Your task to perform on an android device: uninstall "Walmart Shopping & Grocery" Image 0: 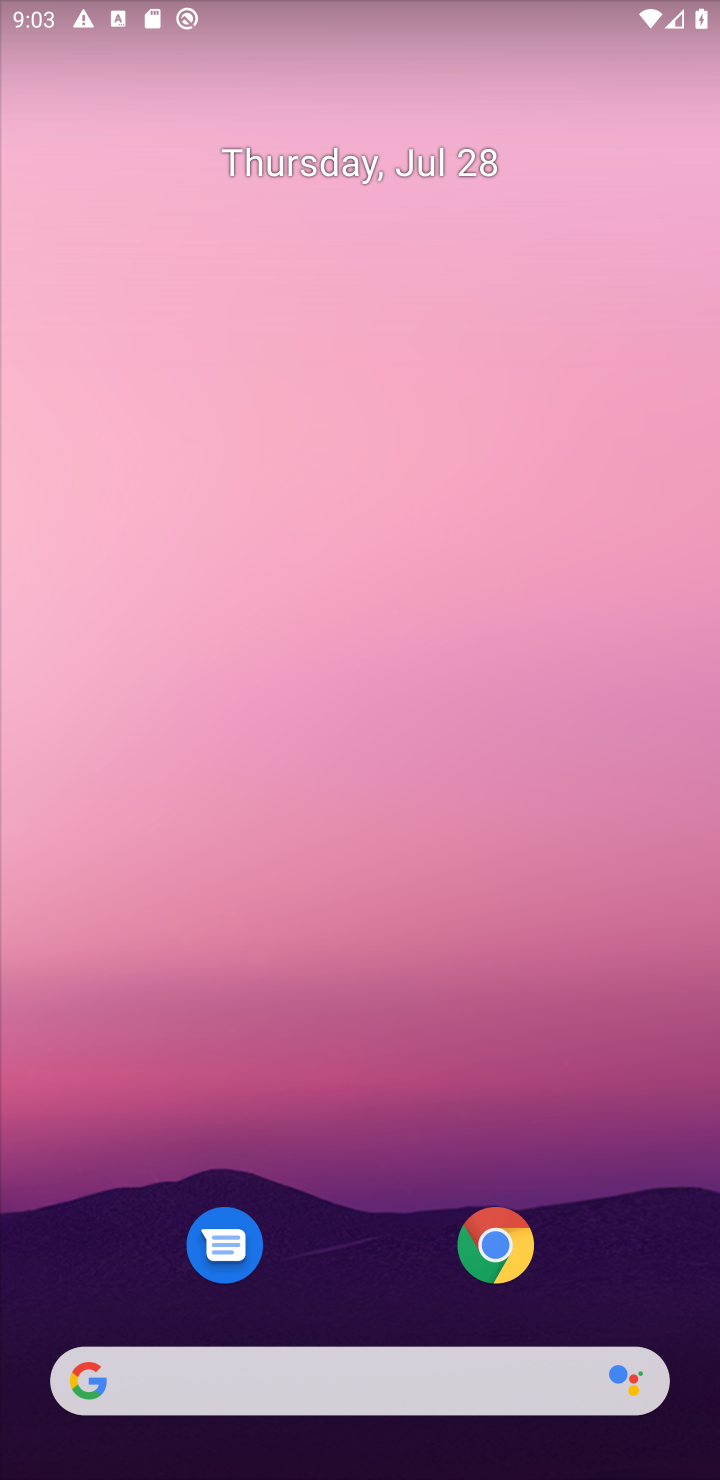
Step 0: drag from (343, 1238) to (495, 3)
Your task to perform on an android device: uninstall "Walmart Shopping & Grocery" Image 1: 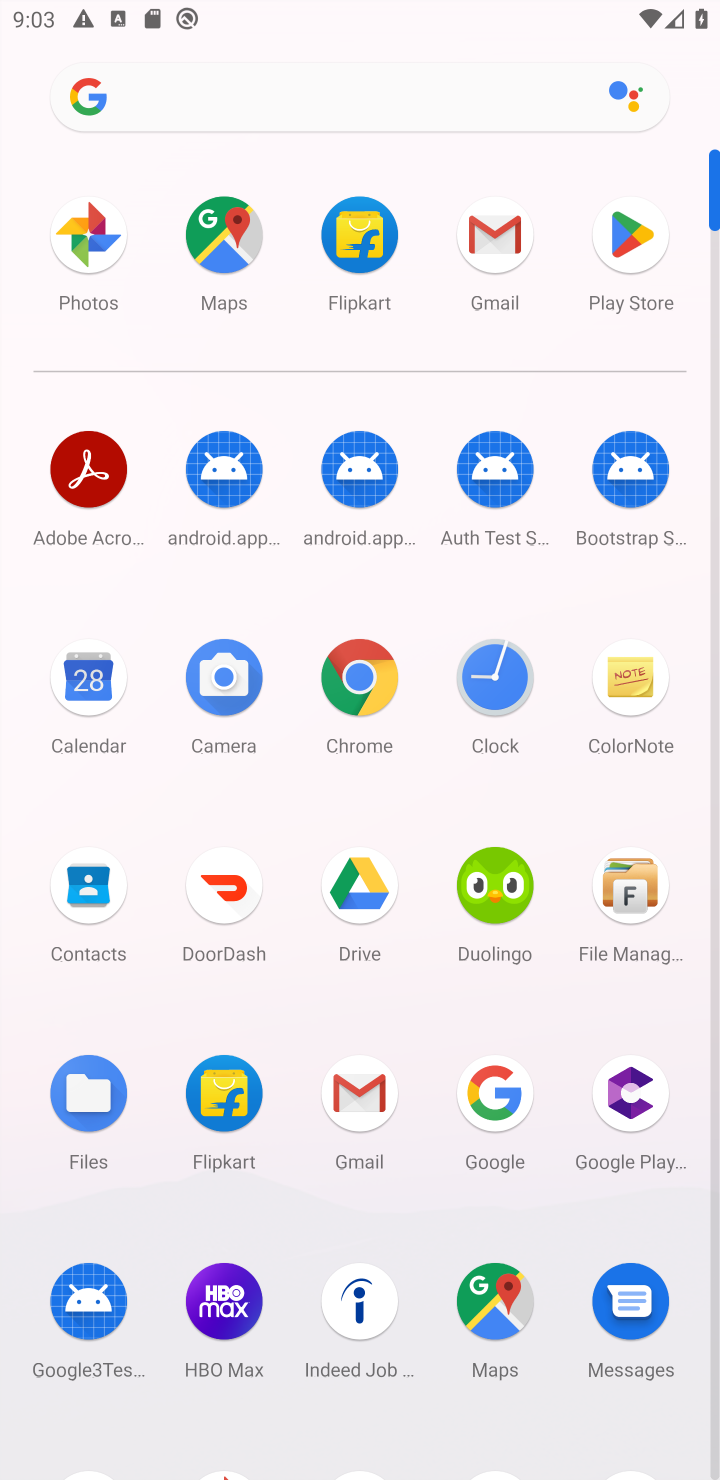
Step 1: click (620, 240)
Your task to perform on an android device: uninstall "Walmart Shopping & Grocery" Image 2: 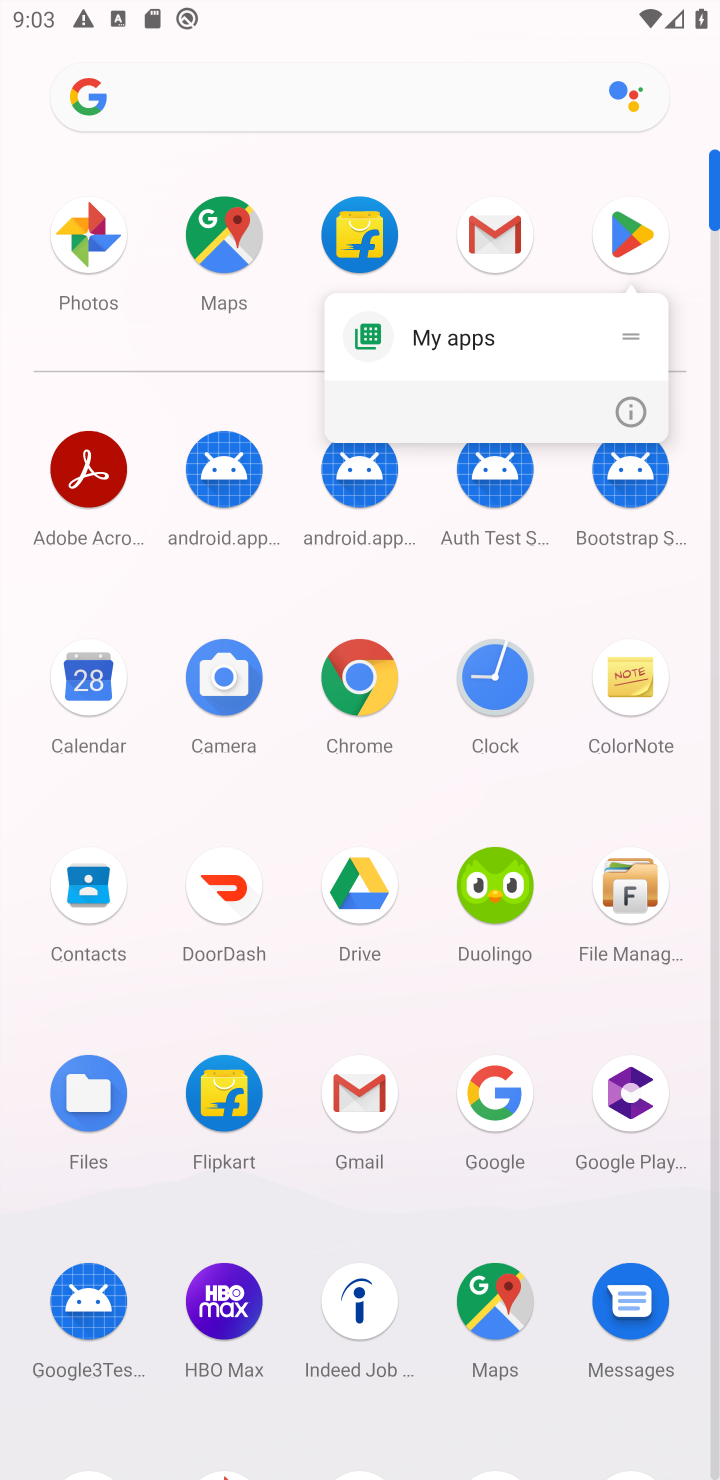
Step 2: click (623, 230)
Your task to perform on an android device: uninstall "Walmart Shopping & Grocery" Image 3: 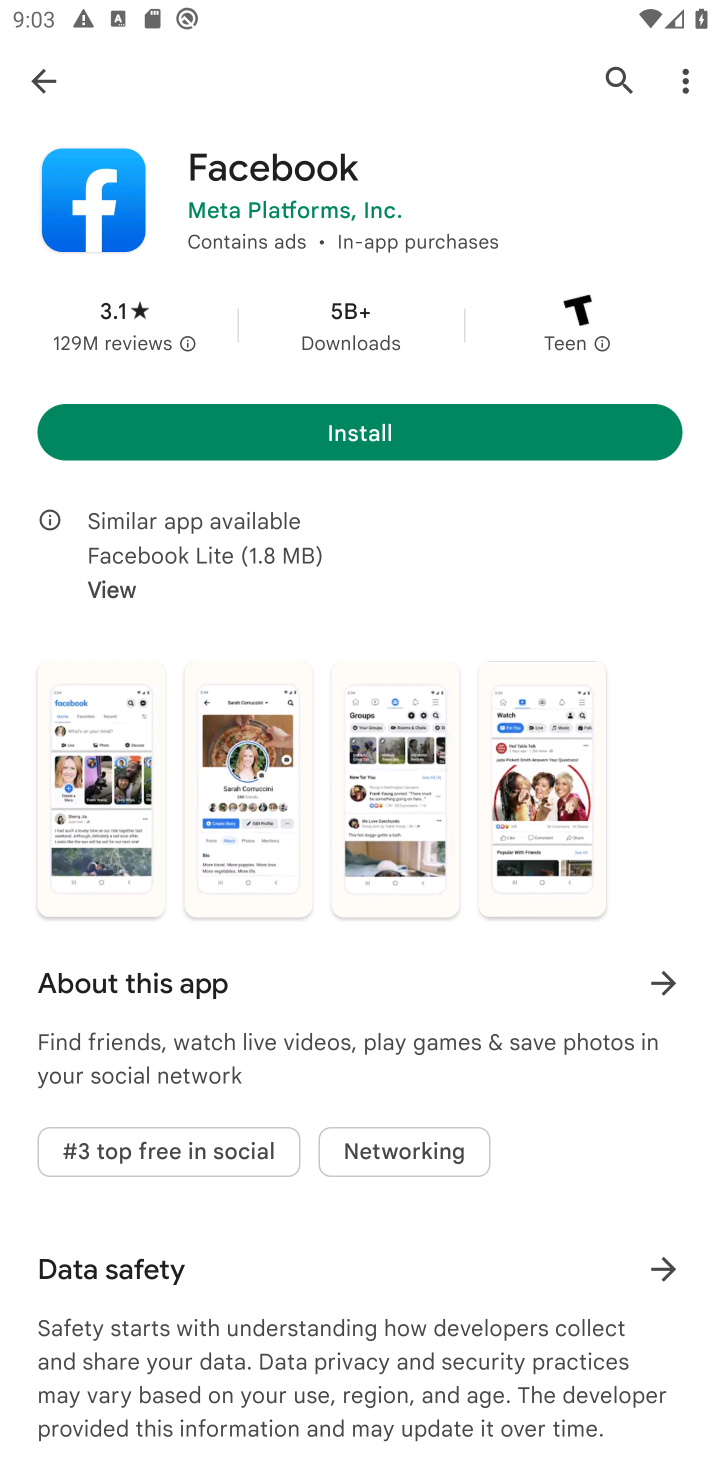
Step 3: click (619, 81)
Your task to perform on an android device: uninstall "Walmart Shopping & Grocery" Image 4: 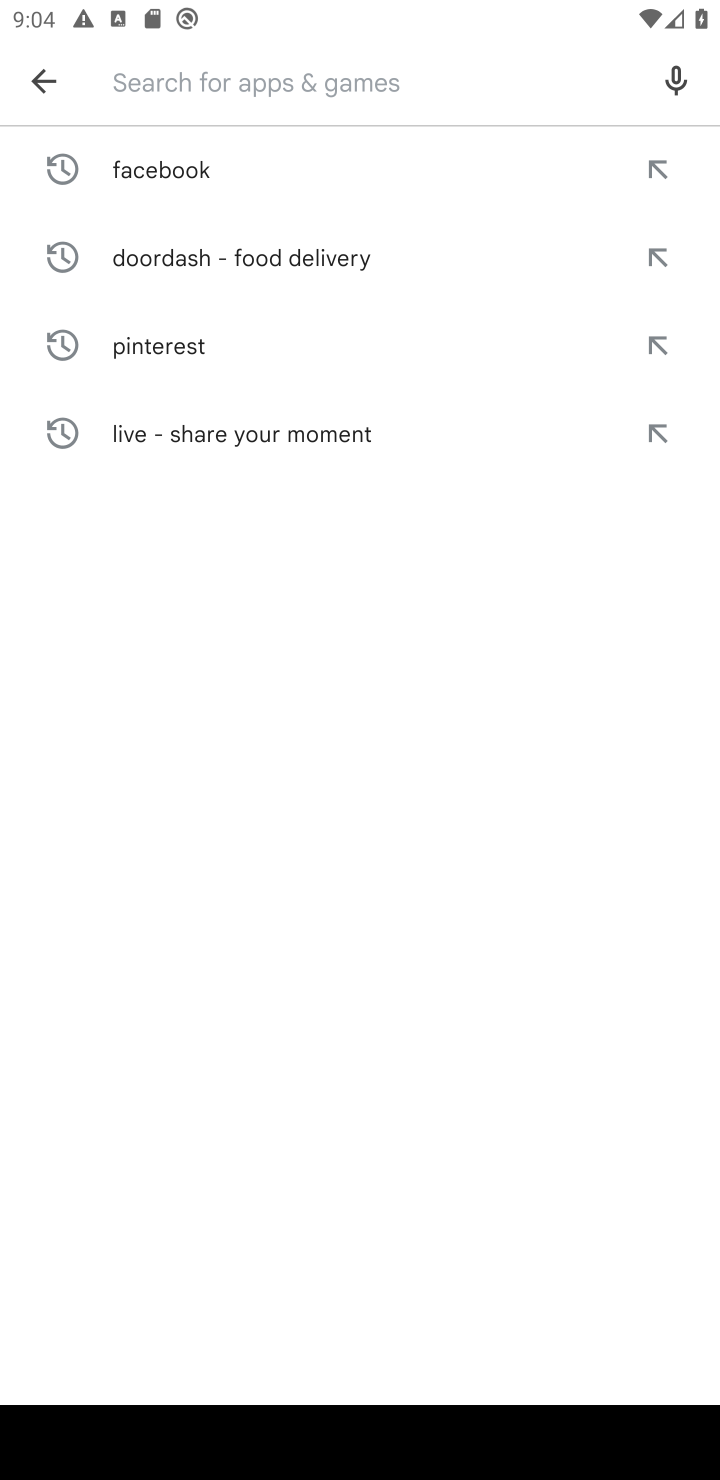
Step 4: type "Walmart shoping & grocery"
Your task to perform on an android device: uninstall "Walmart Shopping & Grocery" Image 5: 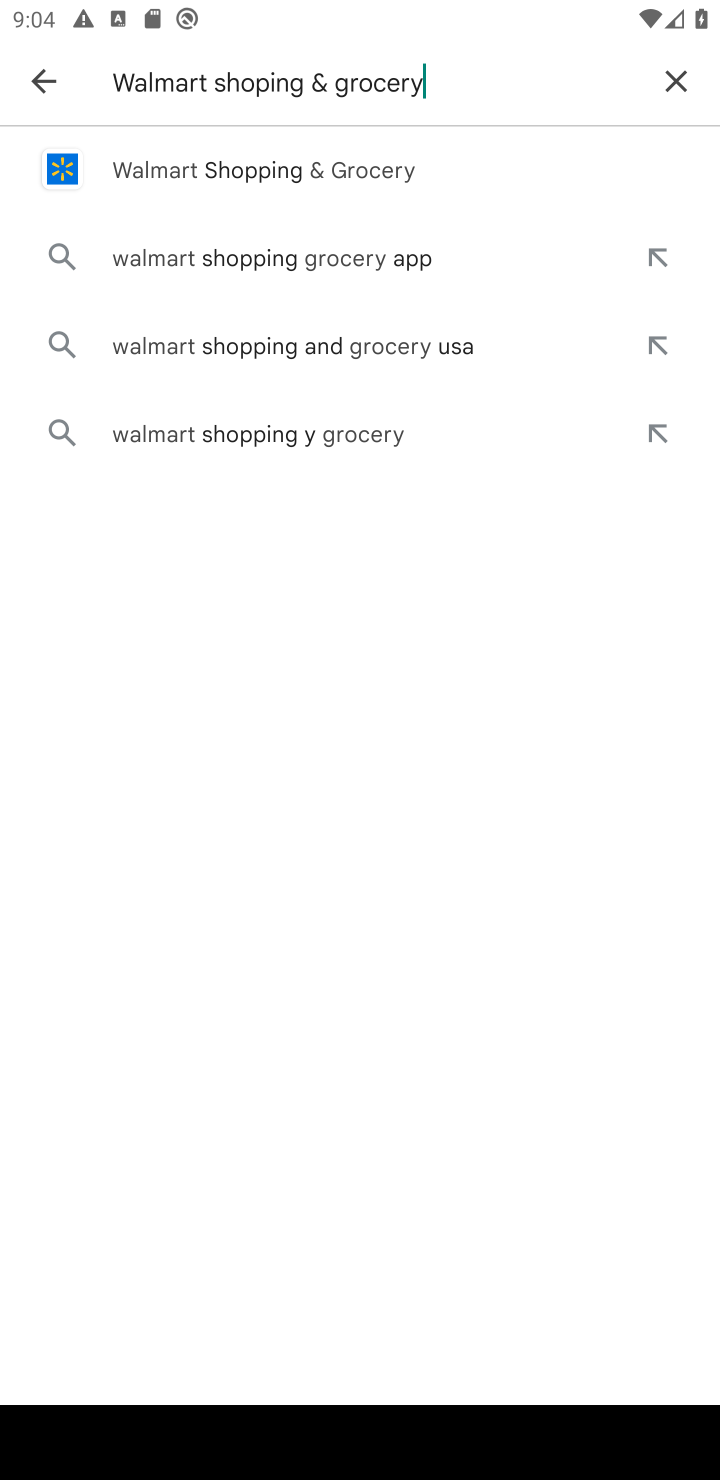
Step 5: click (317, 165)
Your task to perform on an android device: uninstall "Walmart Shopping & Grocery" Image 6: 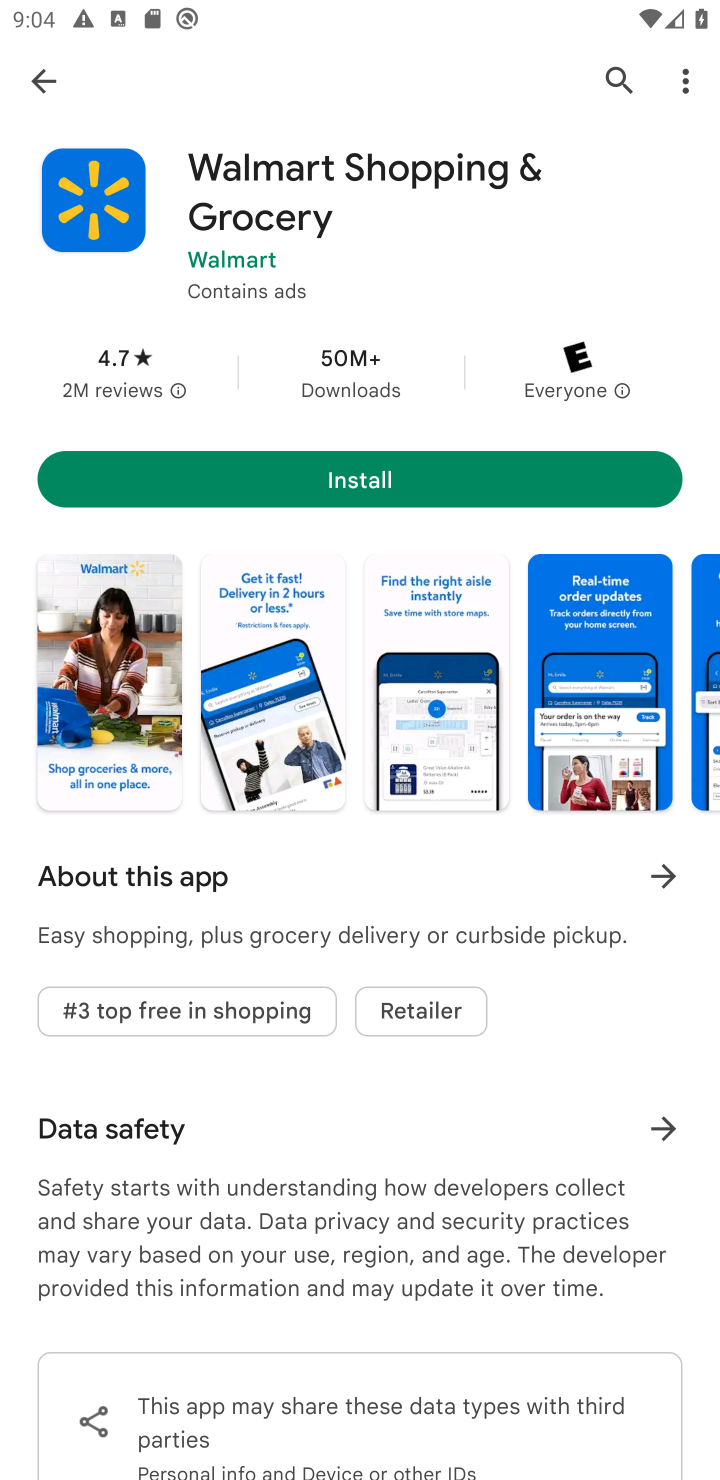
Step 6: task complete